Your task to perform on an android device: Open battery settings Image 0: 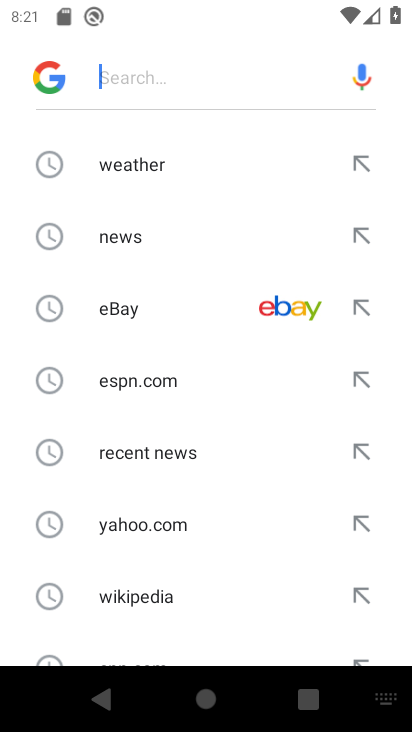
Step 0: press home button
Your task to perform on an android device: Open battery settings Image 1: 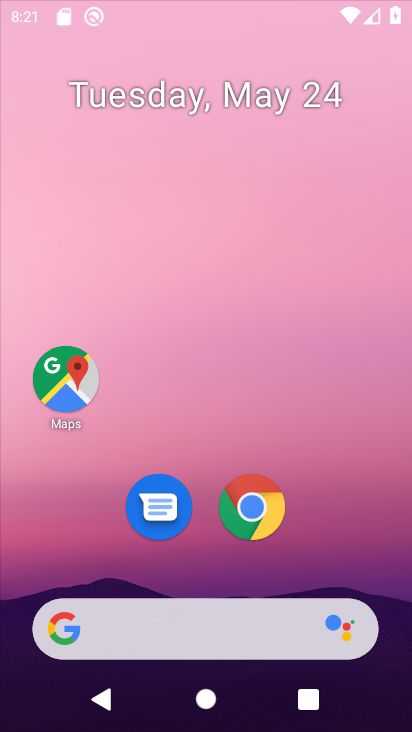
Step 1: drag from (193, 582) to (113, 14)
Your task to perform on an android device: Open battery settings Image 2: 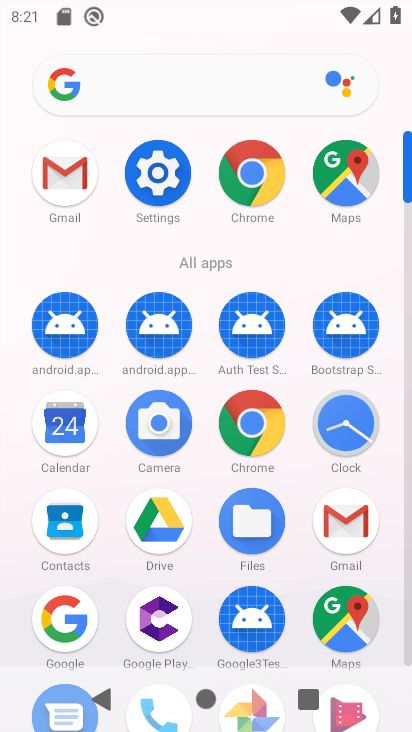
Step 2: click (143, 89)
Your task to perform on an android device: Open battery settings Image 3: 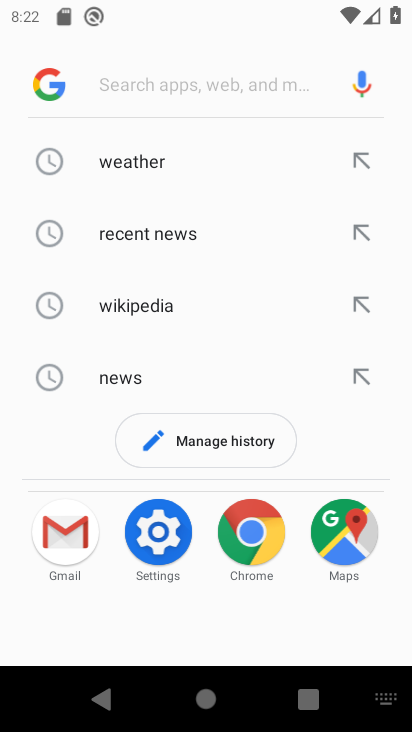
Step 3: drag from (151, 380) to (185, 107)
Your task to perform on an android device: Open battery settings Image 4: 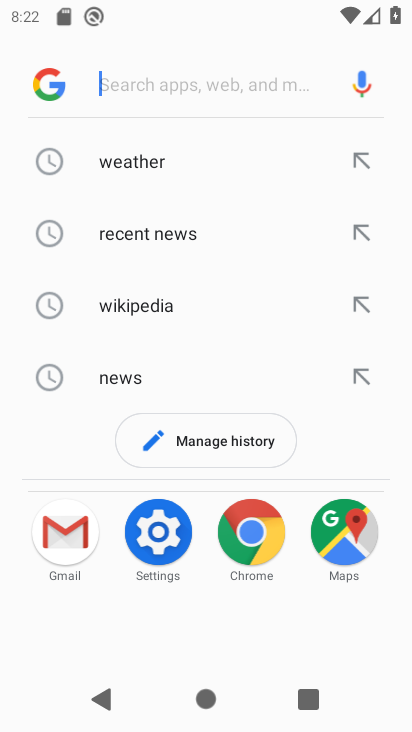
Step 4: press home button
Your task to perform on an android device: Open battery settings Image 5: 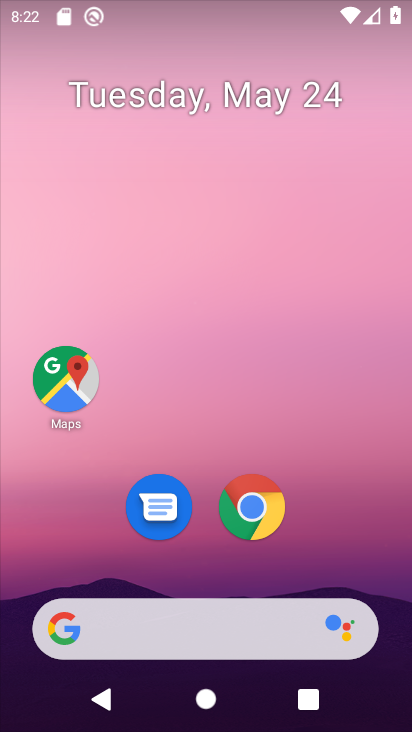
Step 5: drag from (213, 542) to (215, 6)
Your task to perform on an android device: Open battery settings Image 6: 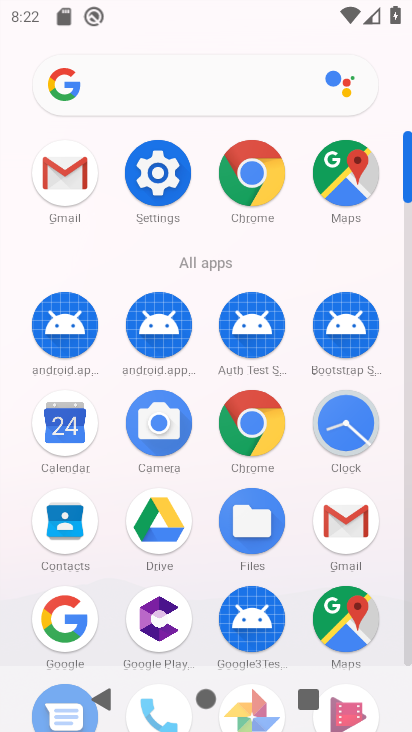
Step 6: click (155, 167)
Your task to perform on an android device: Open battery settings Image 7: 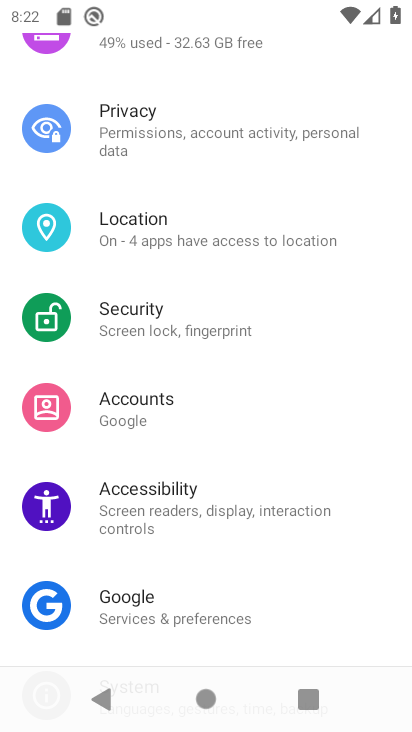
Step 7: drag from (229, 503) to (233, 140)
Your task to perform on an android device: Open battery settings Image 8: 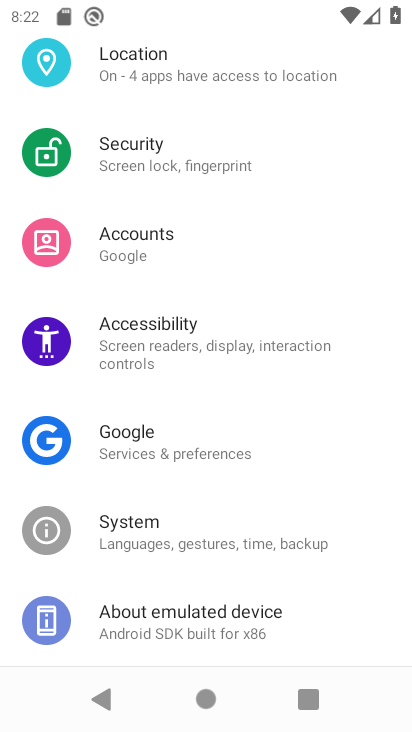
Step 8: drag from (231, 141) to (259, 646)
Your task to perform on an android device: Open battery settings Image 9: 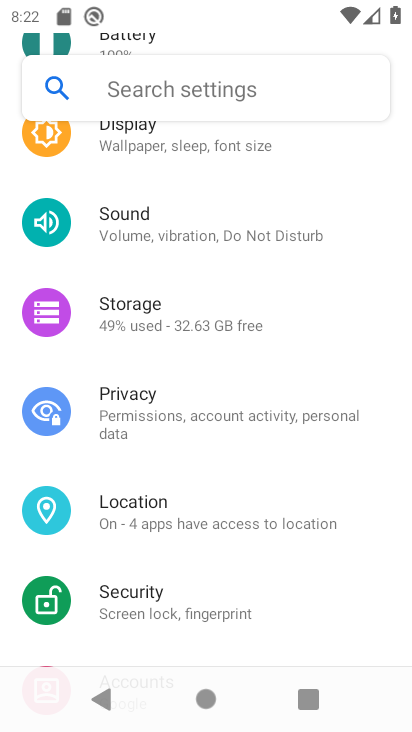
Step 9: drag from (174, 277) to (268, 636)
Your task to perform on an android device: Open battery settings Image 10: 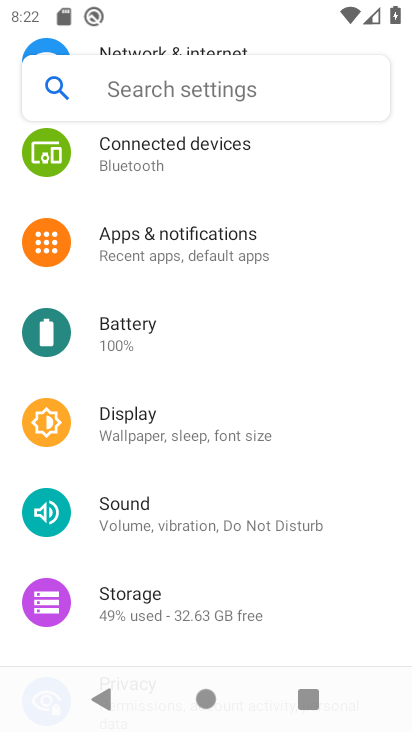
Step 10: click (188, 329)
Your task to perform on an android device: Open battery settings Image 11: 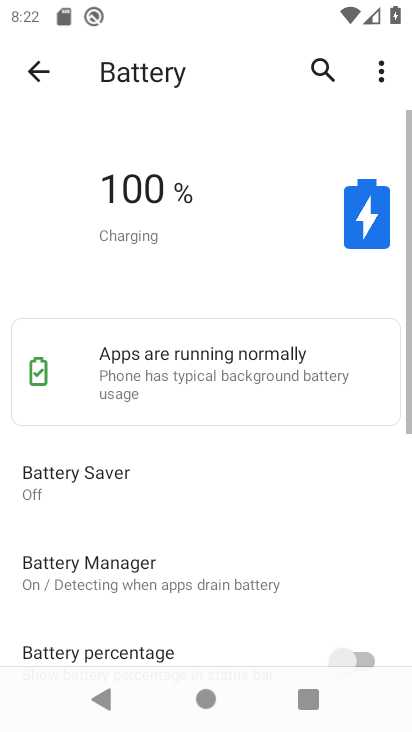
Step 11: task complete